Your task to perform on an android device: toggle priority inbox in the gmail app Image 0: 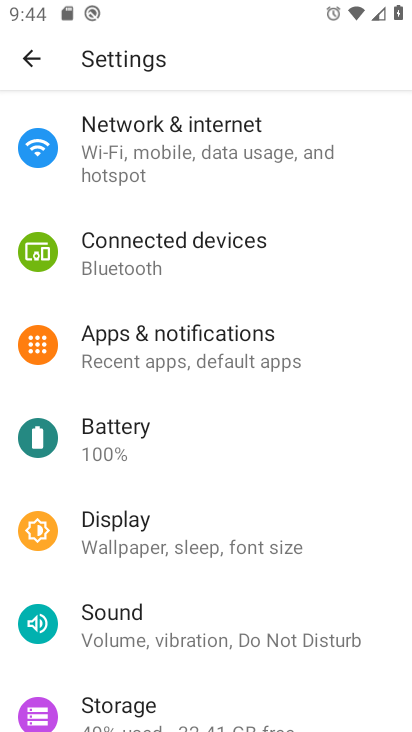
Step 0: press home button
Your task to perform on an android device: toggle priority inbox in the gmail app Image 1: 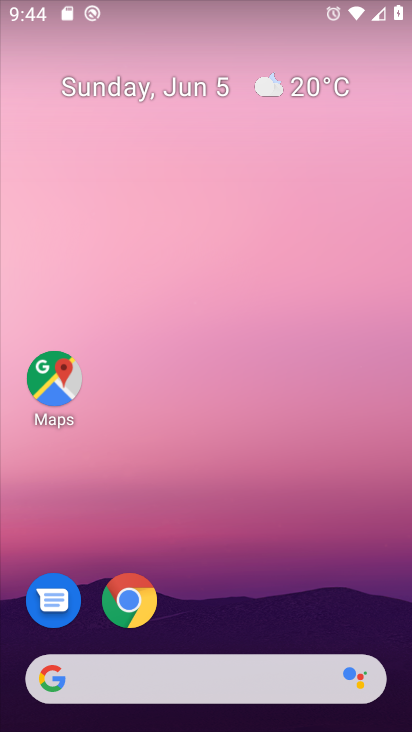
Step 1: drag from (210, 547) to (228, 35)
Your task to perform on an android device: toggle priority inbox in the gmail app Image 2: 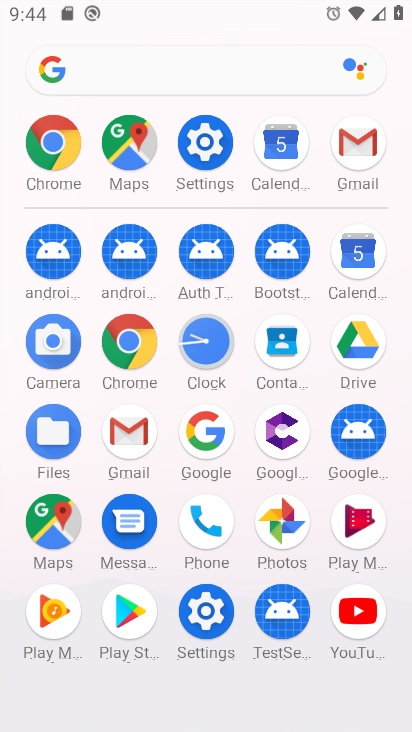
Step 2: click (349, 146)
Your task to perform on an android device: toggle priority inbox in the gmail app Image 3: 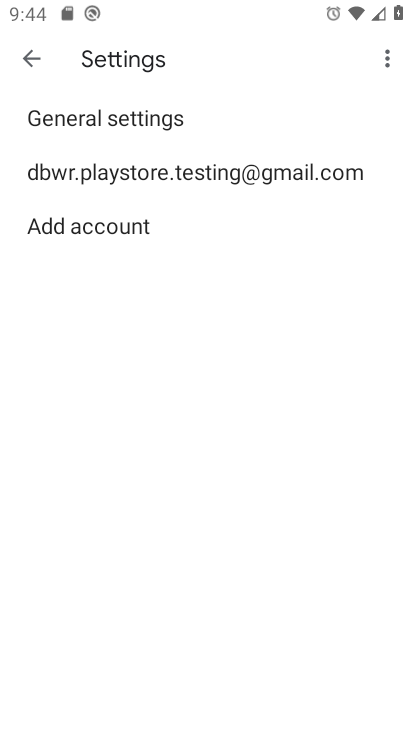
Step 3: click (241, 173)
Your task to perform on an android device: toggle priority inbox in the gmail app Image 4: 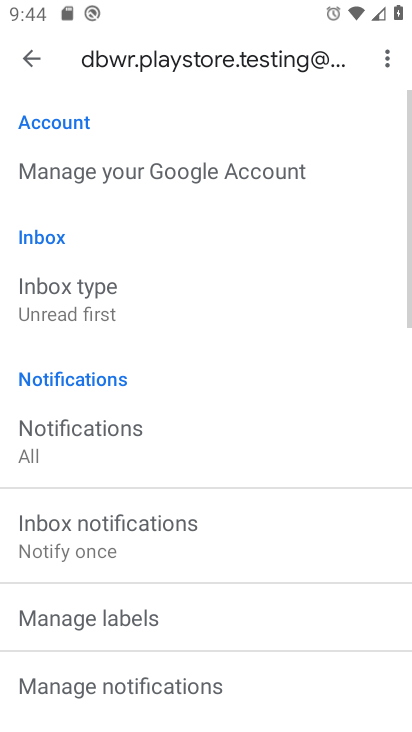
Step 4: click (101, 292)
Your task to perform on an android device: toggle priority inbox in the gmail app Image 5: 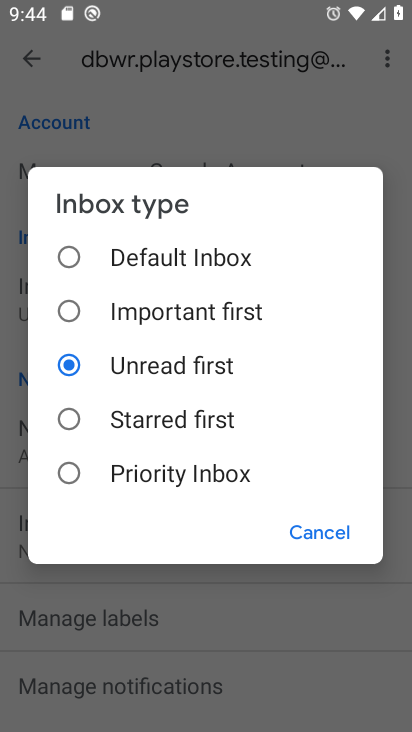
Step 5: click (68, 468)
Your task to perform on an android device: toggle priority inbox in the gmail app Image 6: 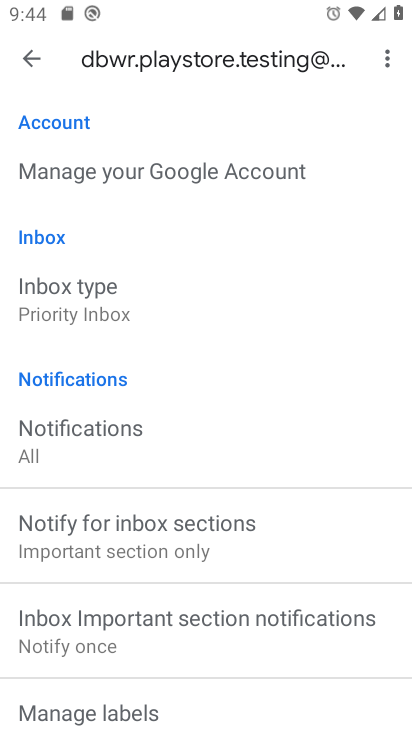
Step 6: task complete